Your task to perform on an android device: open app "Gmail" (install if not already installed), go to login, and select forgot password Image 0: 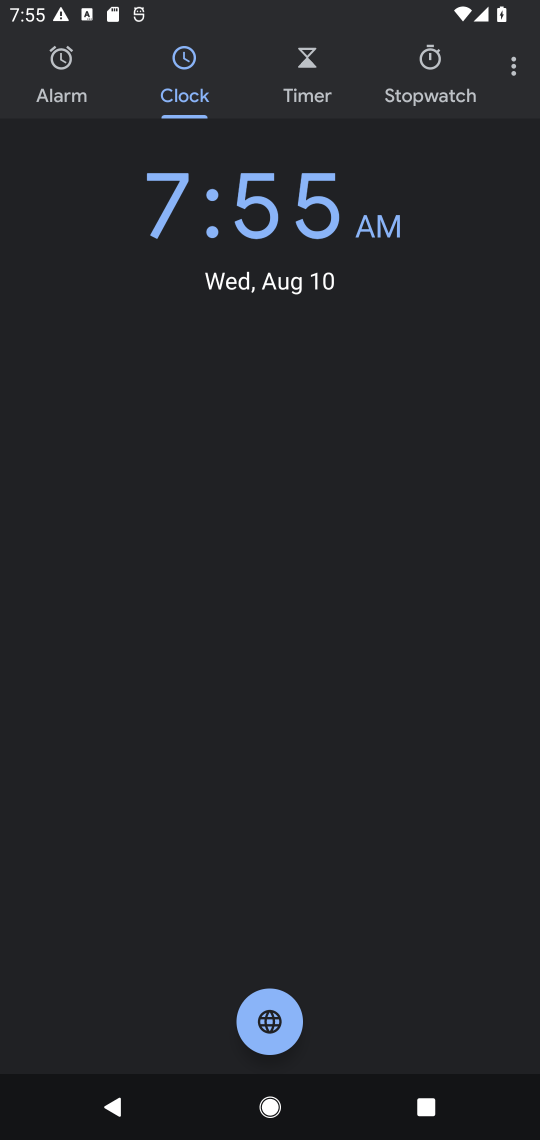
Step 0: press home button
Your task to perform on an android device: open app "Gmail" (install if not already installed), go to login, and select forgot password Image 1: 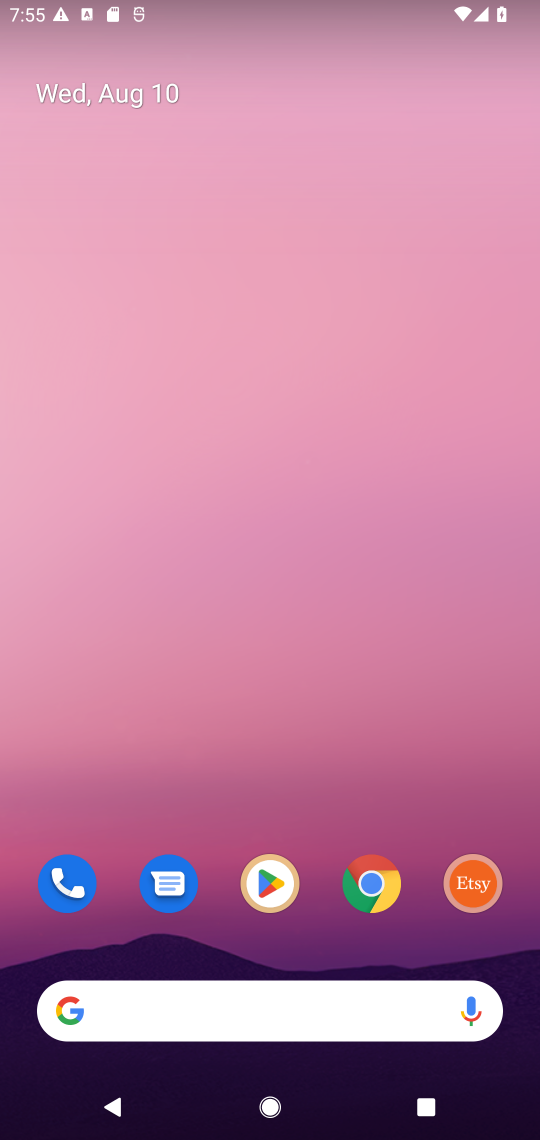
Step 1: drag from (328, 857) to (342, 199)
Your task to perform on an android device: open app "Gmail" (install if not already installed), go to login, and select forgot password Image 2: 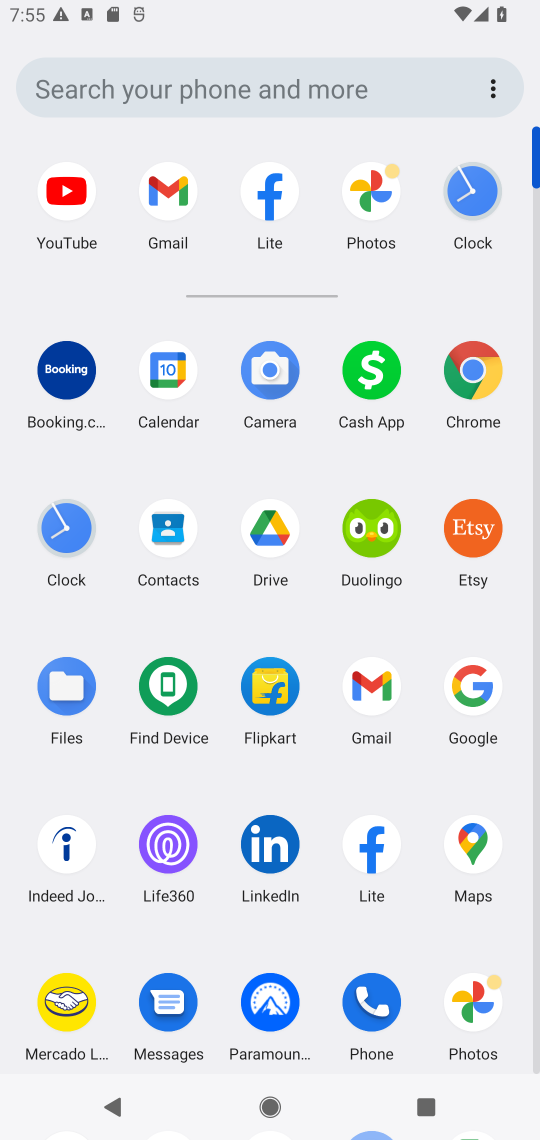
Step 2: click (378, 690)
Your task to perform on an android device: open app "Gmail" (install if not already installed), go to login, and select forgot password Image 3: 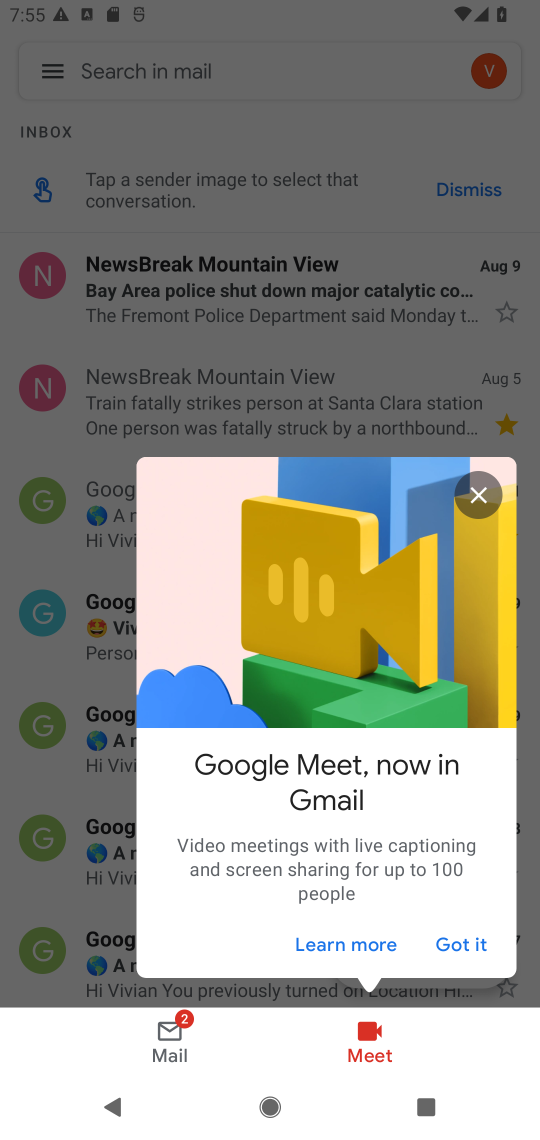
Step 3: click (56, 67)
Your task to perform on an android device: open app "Gmail" (install if not already installed), go to login, and select forgot password Image 4: 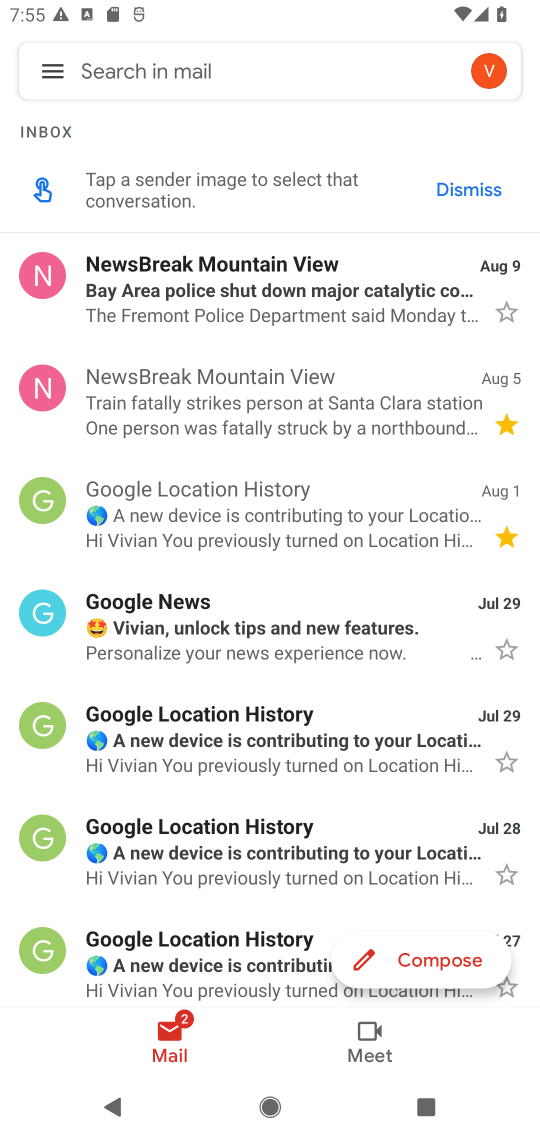
Step 4: click (53, 69)
Your task to perform on an android device: open app "Gmail" (install if not already installed), go to login, and select forgot password Image 5: 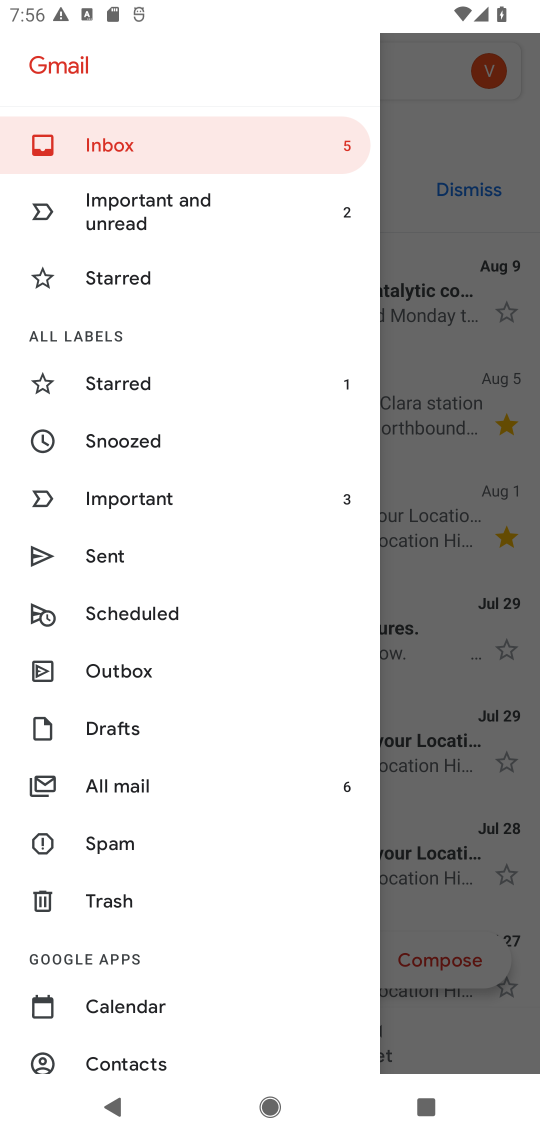
Step 5: drag from (151, 974) to (163, 433)
Your task to perform on an android device: open app "Gmail" (install if not already installed), go to login, and select forgot password Image 6: 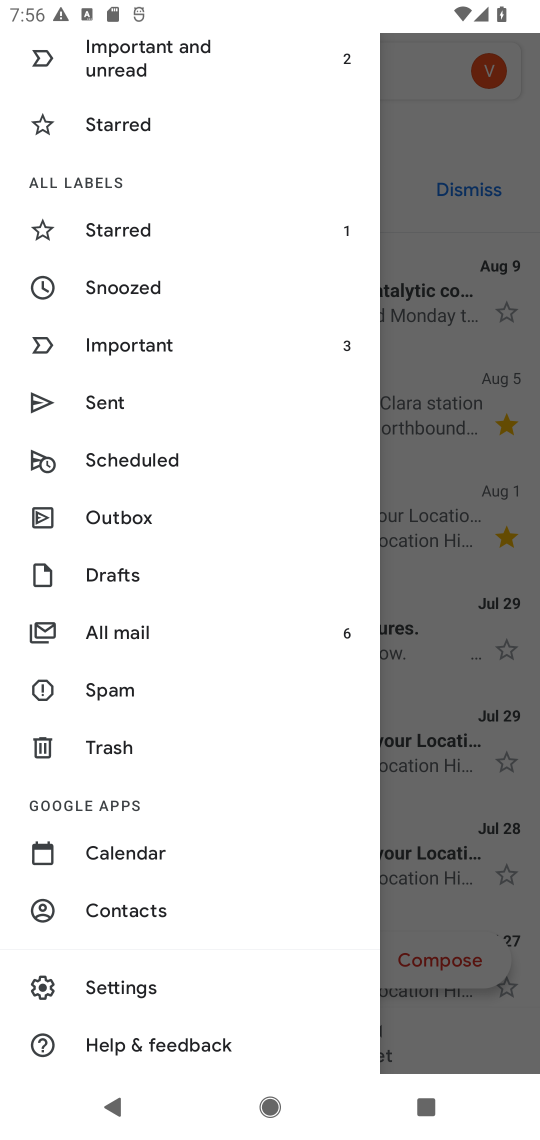
Step 6: click (131, 984)
Your task to perform on an android device: open app "Gmail" (install if not already installed), go to login, and select forgot password Image 7: 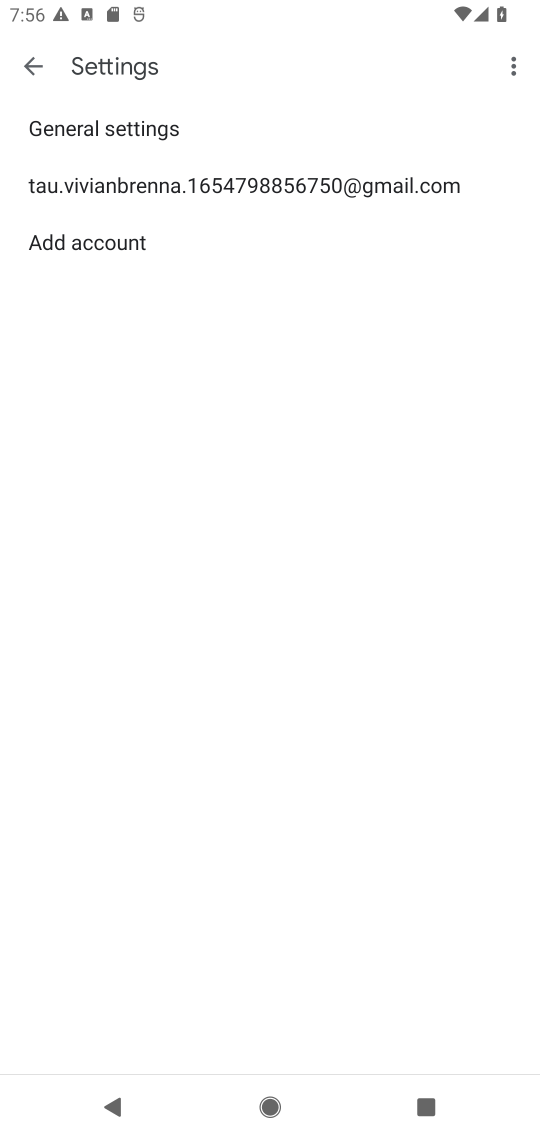
Step 7: click (110, 238)
Your task to perform on an android device: open app "Gmail" (install if not already installed), go to login, and select forgot password Image 8: 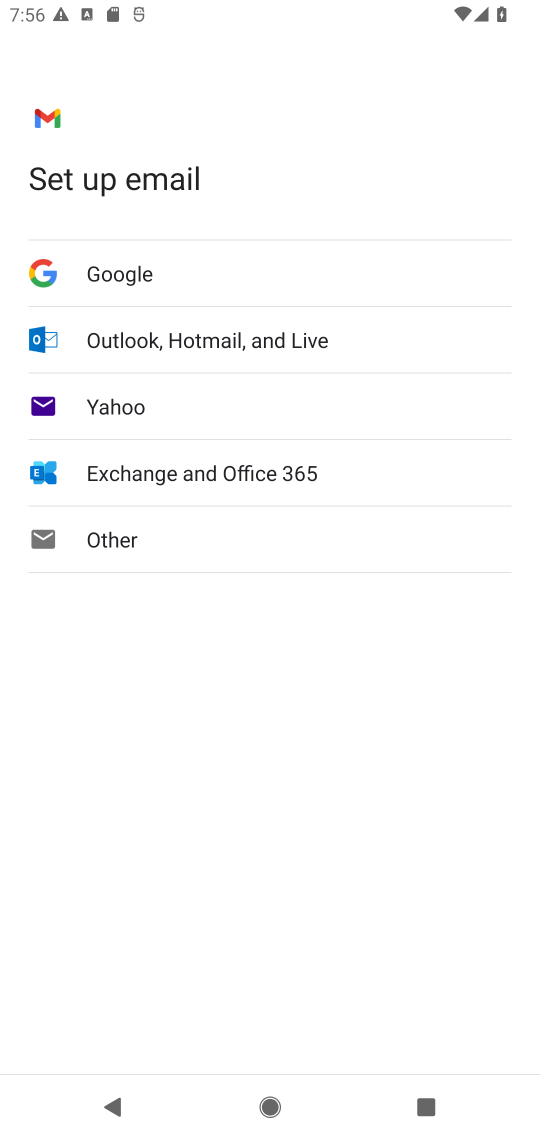
Step 8: click (121, 263)
Your task to perform on an android device: open app "Gmail" (install if not already installed), go to login, and select forgot password Image 9: 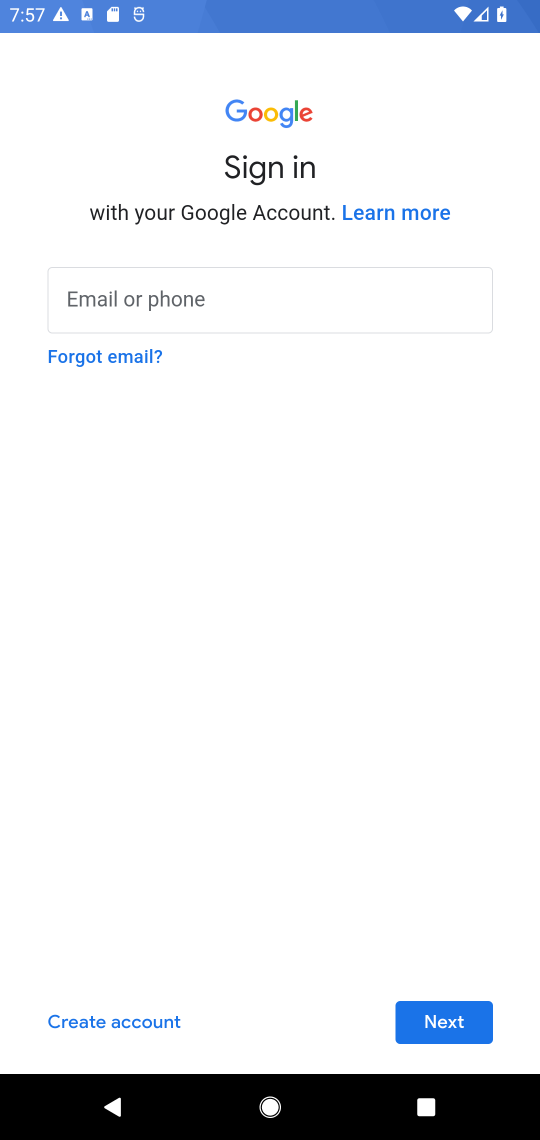
Step 9: click (127, 357)
Your task to perform on an android device: open app "Gmail" (install if not already installed), go to login, and select forgot password Image 10: 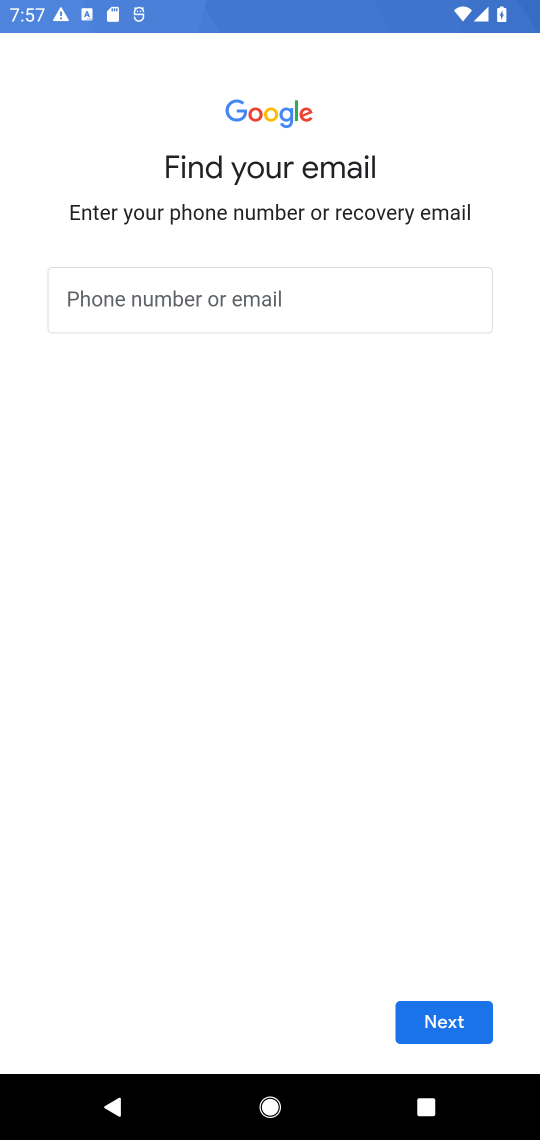
Step 10: task complete